Your task to perform on an android device: open app "Viber Messenger" Image 0: 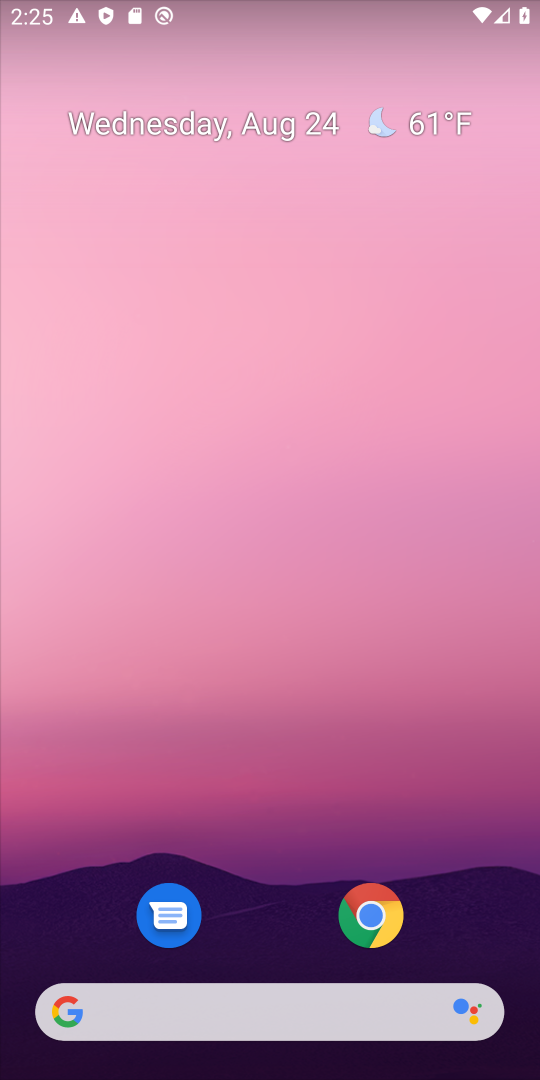
Step 0: drag from (280, 885) to (301, 223)
Your task to perform on an android device: open app "Viber Messenger" Image 1: 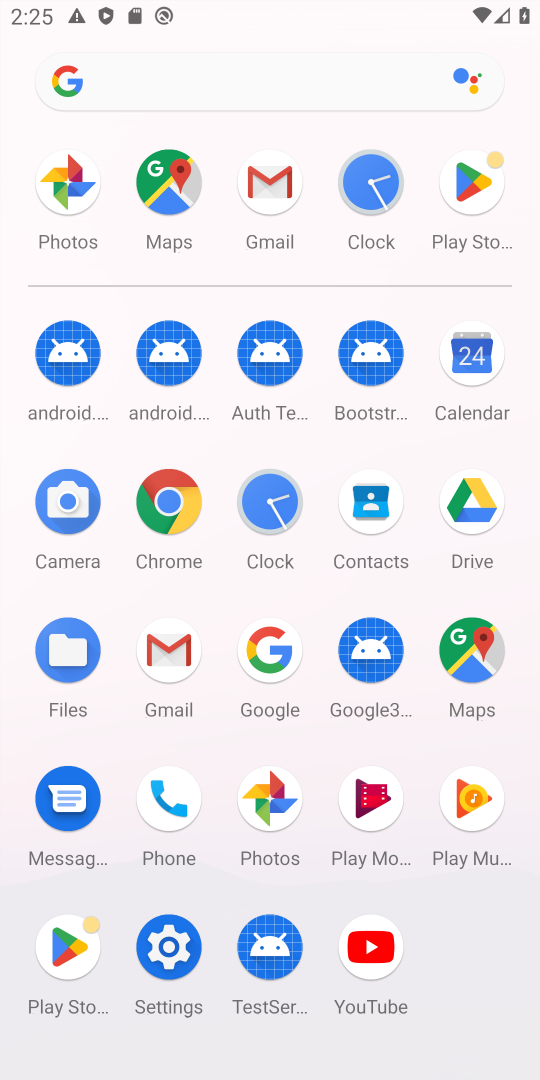
Step 1: click (474, 197)
Your task to perform on an android device: open app "Viber Messenger" Image 2: 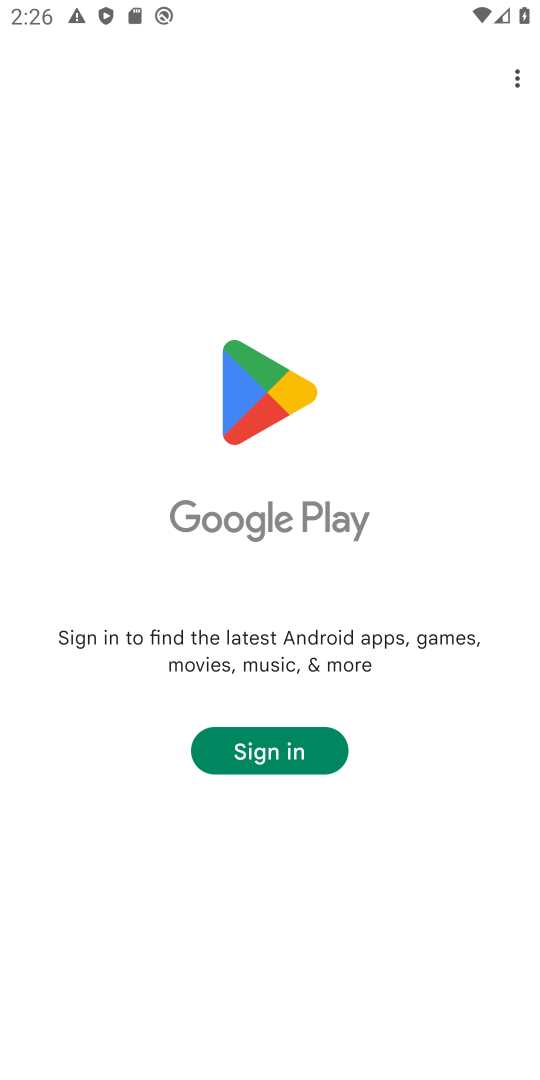
Step 2: task complete